Your task to perform on an android device: delete browsing data in the chrome app Image 0: 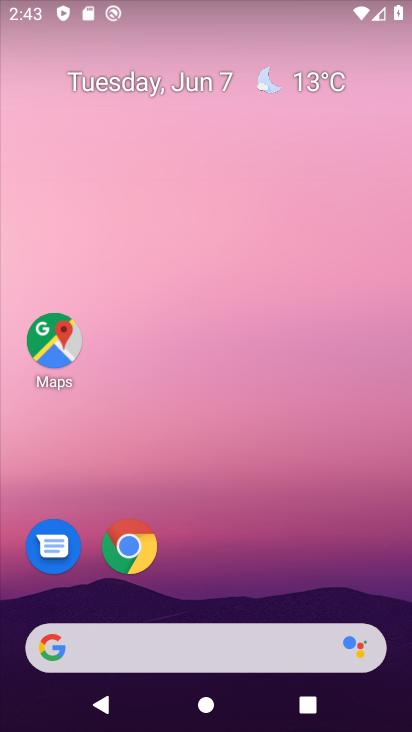
Step 0: click (135, 542)
Your task to perform on an android device: delete browsing data in the chrome app Image 1: 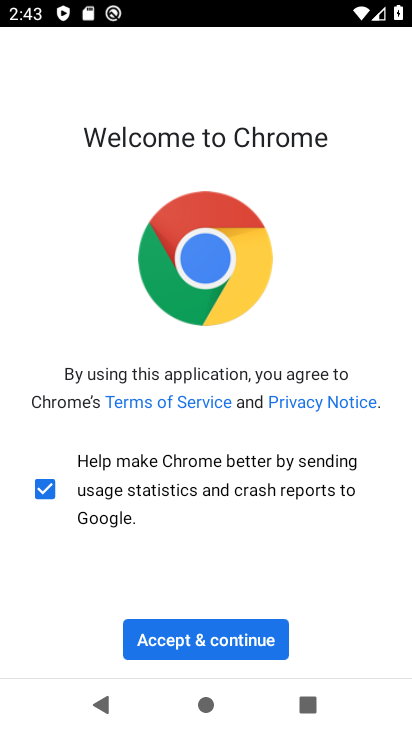
Step 1: click (225, 644)
Your task to perform on an android device: delete browsing data in the chrome app Image 2: 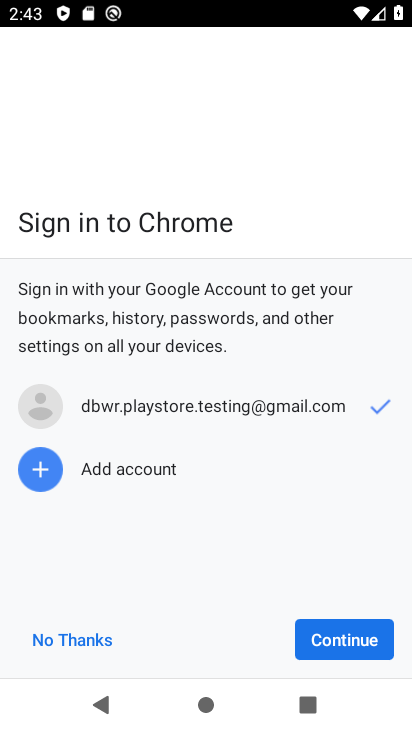
Step 2: click (304, 641)
Your task to perform on an android device: delete browsing data in the chrome app Image 3: 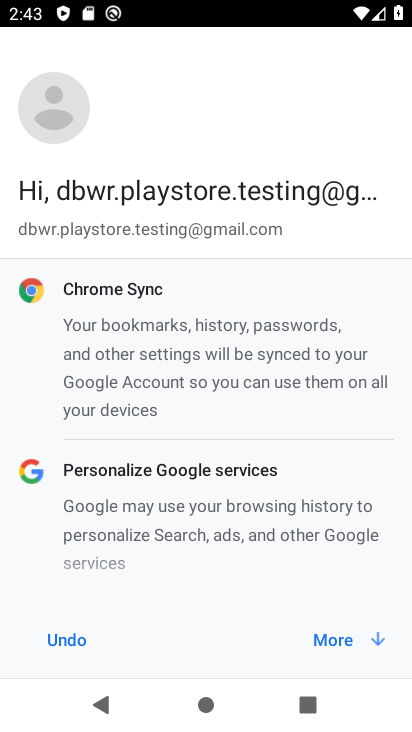
Step 3: click (329, 641)
Your task to perform on an android device: delete browsing data in the chrome app Image 4: 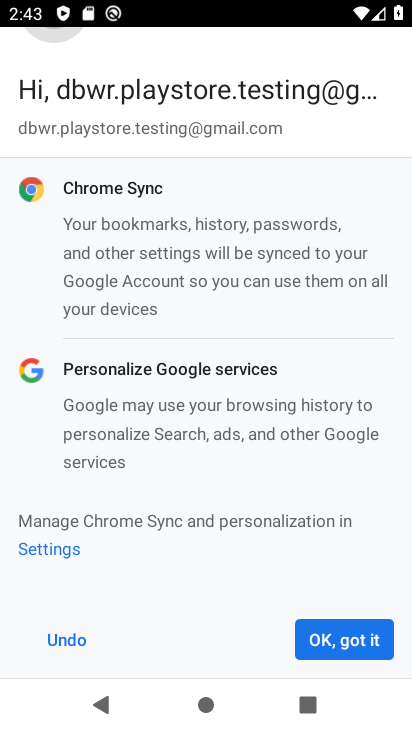
Step 4: click (329, 635)
Your task to perform on an android device: delete browsing data in the chrome app Image 5: 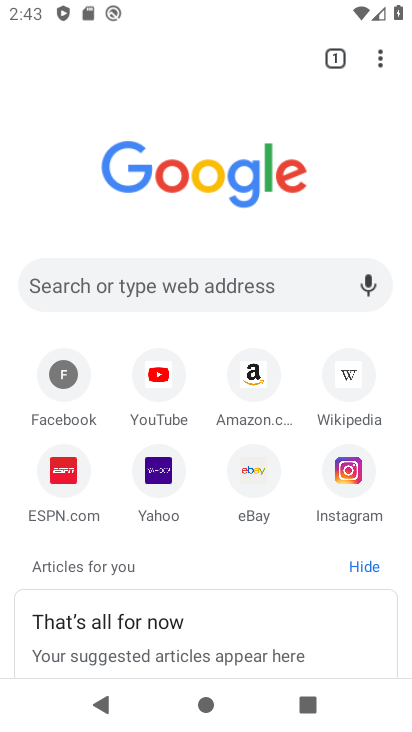
Step 5: click (378, 56)
Your task to perform on an android device: delete browsing data in the chrome app Image 6: 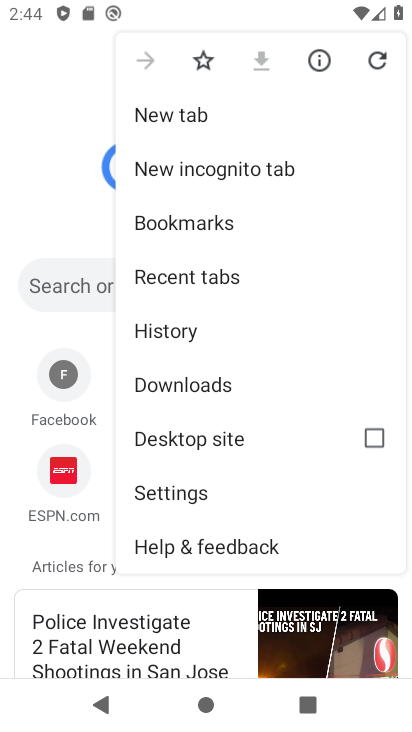
Step 6: click (206, 332)
Your task to perform on an android device: delete browsing data in the chrome app Image 7: 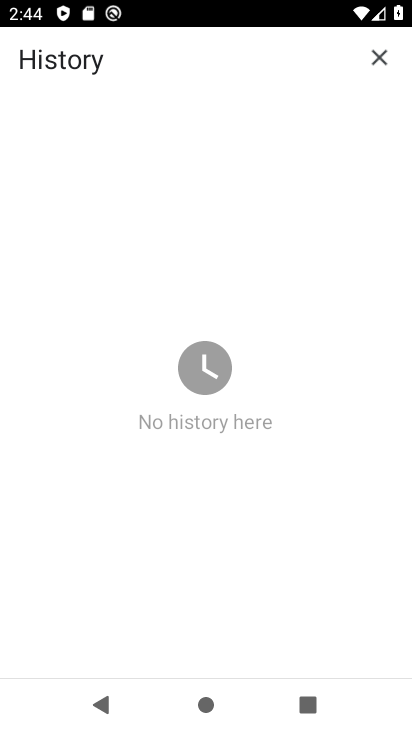
Step 7: task complete